Your task to perform on an android device: What's on my calendar today? Image 0: 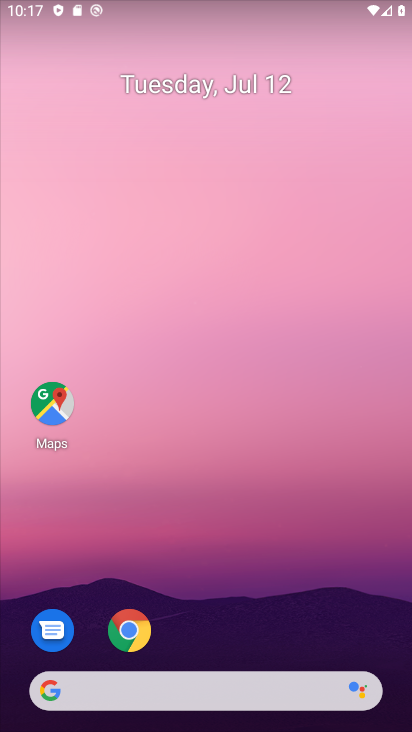
Step 0: drag from (347, 594) to (350, 196)
Your task to perform on an android device: What's on my calendar today? Image 1: 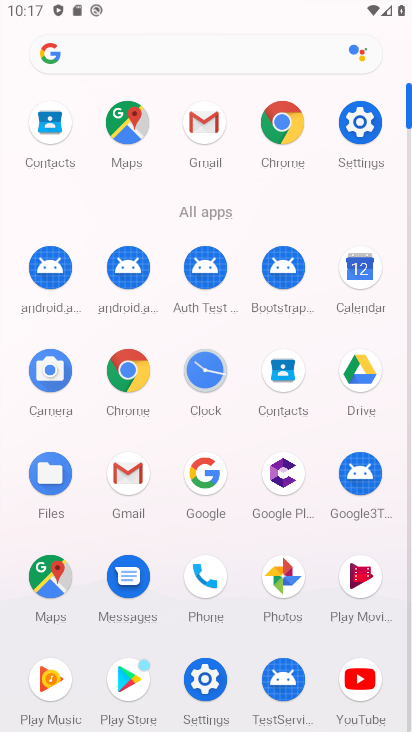
Step 1: click (365, 274)
Your task to perform on an android device: What's on my calendar today? Image 2: 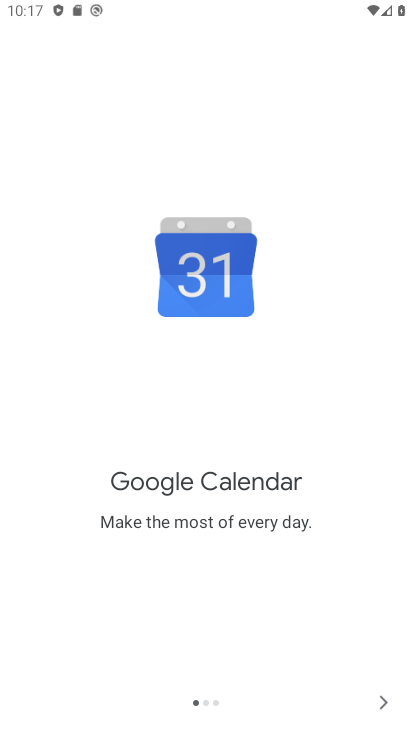
Step 2: click (376, 695)
Your task to perform on an android device: What's on my calendar today? Image 3: 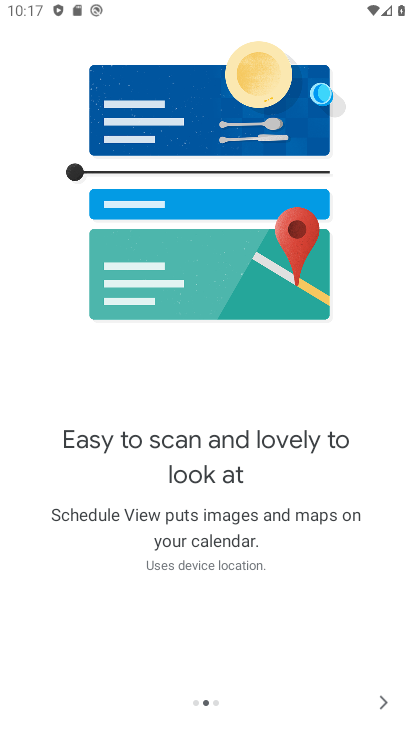
Step 3: click (380, 709)
Your task to perform on an android device: What's on my calendar today? Image 4: 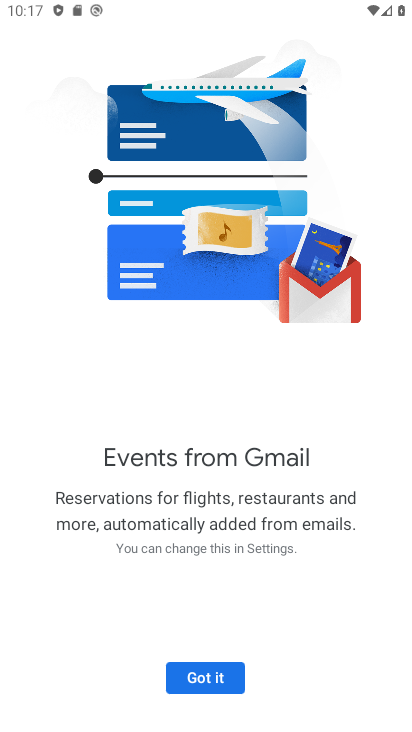
Step 4: click (219, 689)
Your task to perform on an android device: What's on my calendar today? Image 5: 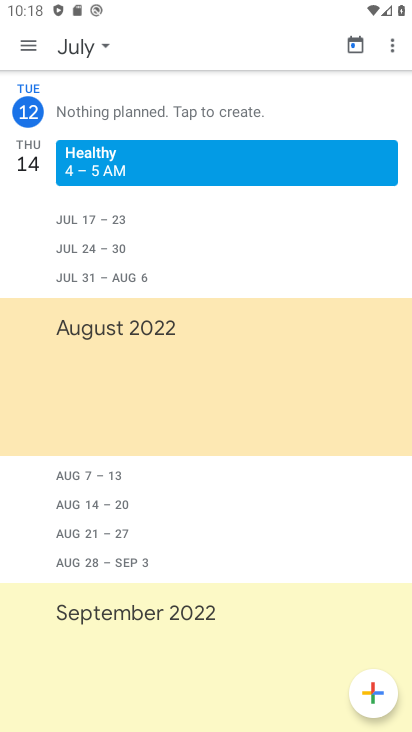
Step 5: click (99, 46)
Your task to perform on an android device: What's on my calendar today? Image 6: 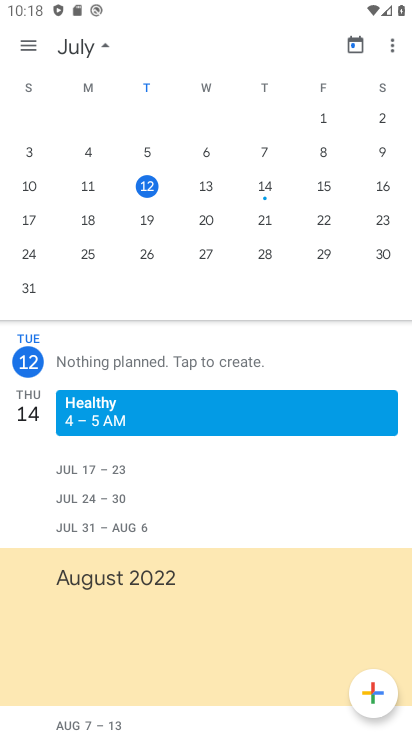
Step 6: click (211, 186)
Your task to perform on an android device: What's on my calendar today? Image 7: 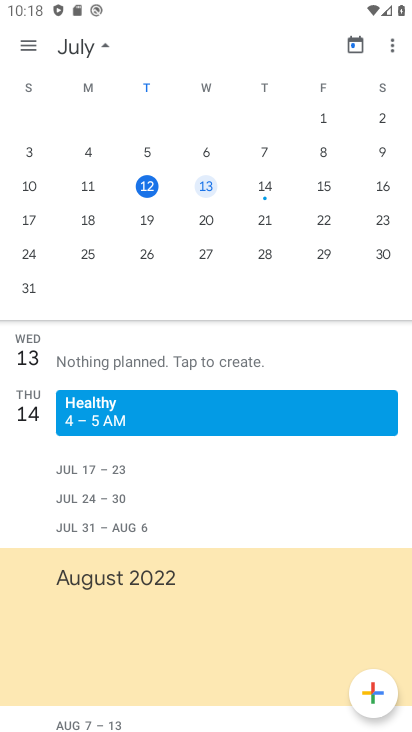
Step 7: task complete